Your task to perform on an android device: toggle notifications settings in the gmail app Image 0: 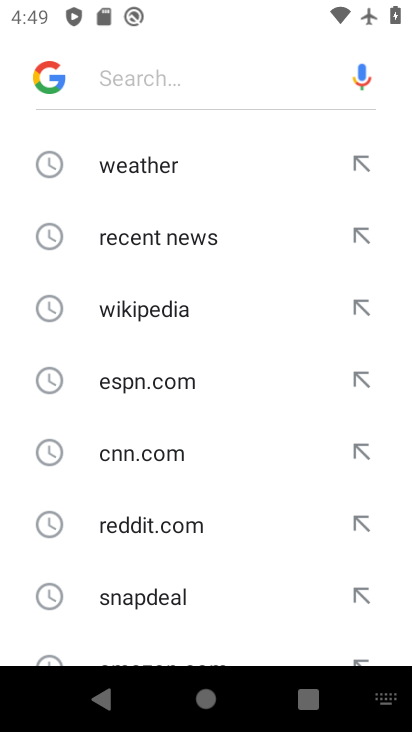
Step 0: press back button
Your task to perform on an android device: toggle notifications settings in the gmail app Image 1: 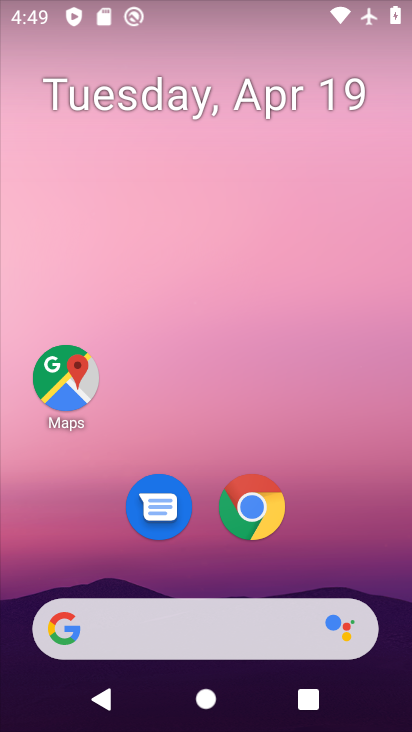
Step 1: drag from (316, 521) to (343, 29)
Your task to perform on an android device: toggle notifications settings in the gmail app Image 2: 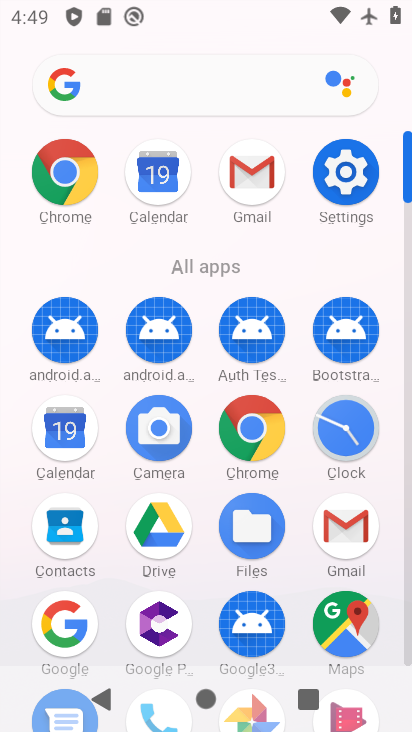
Step 2: click (250, 160)
Your task to perform on an android device: toggle notifications settings in the gmail app Image 3: 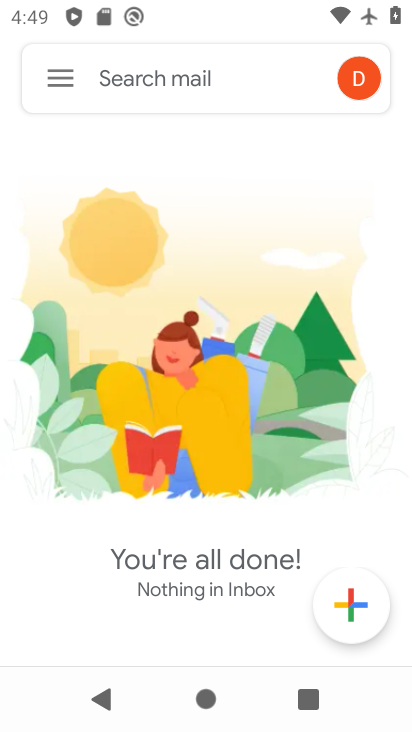
Step 3: click (53, 81)
Your task to perform on an android device: toggle notifications settings in the gmail app Image 4: 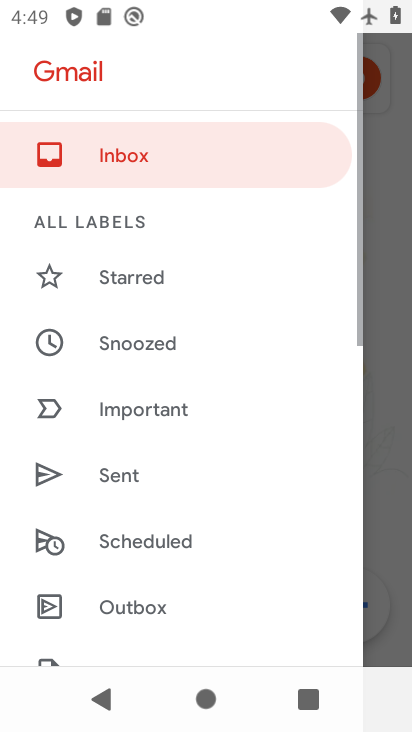
Step 4: drag from (118, 576) to (248, 103)
Your task to perform on an android device: toggle notifications settings in the gmail app Image 5: 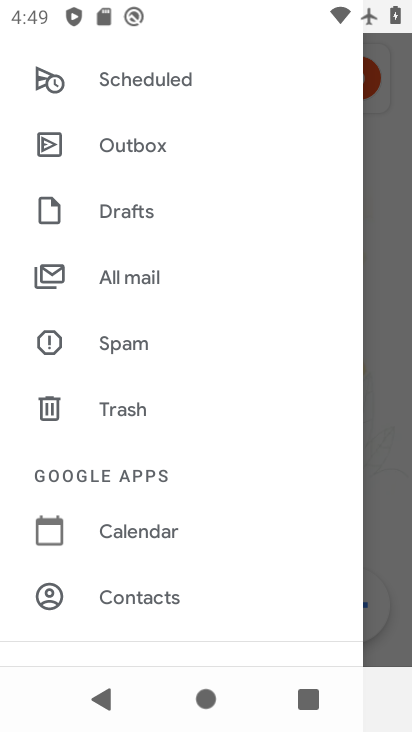
Step 5: drag from (134, 601) to (252, 254)
Your task to perform on an android device: toggle notifications settings in the gmail app Image 6: 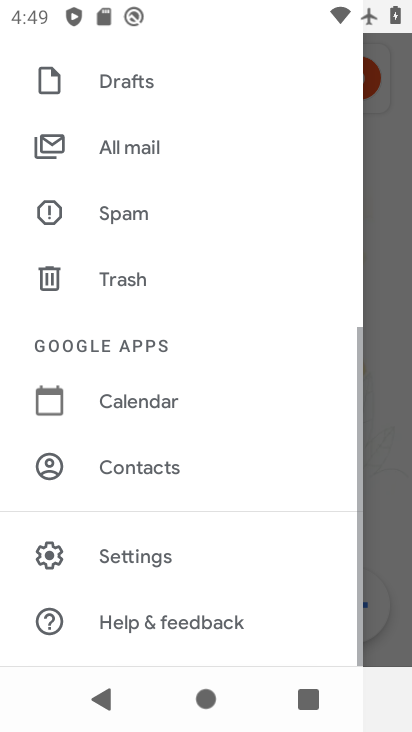
Step 6: click (142, 551)
Your task to perform on an android device: toggle notifications settings in the gmail app Image 7: 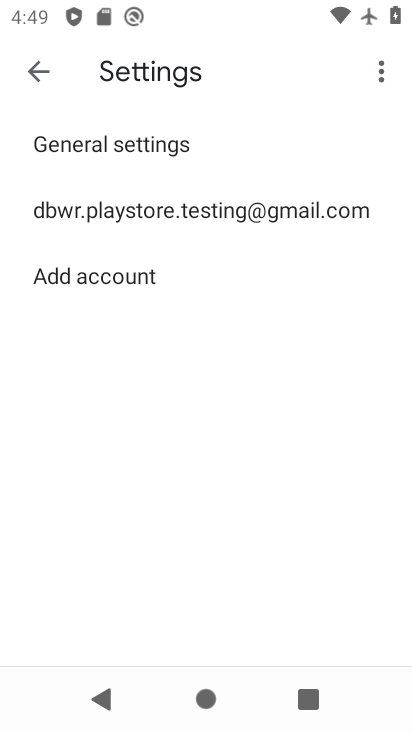
Step 7: click (245, 207)
Your task to perform on an android device: toggle notifications settings in the gmail app Image 8: 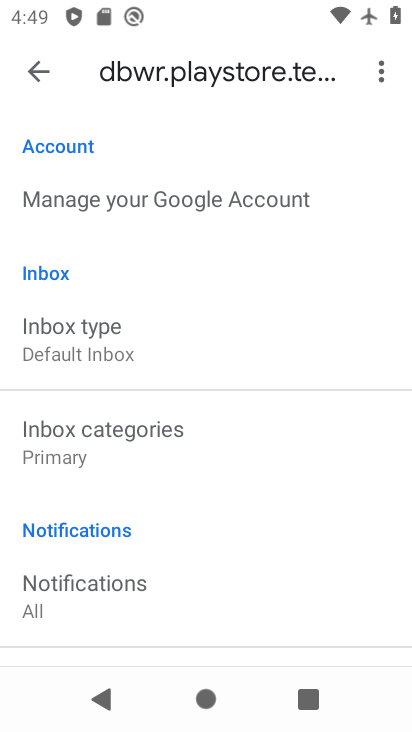
Step 8: drag from (210, 539) to (298, 218)
Your task to perform on an android device: toggle notifications settings in the gmail app Image 9: 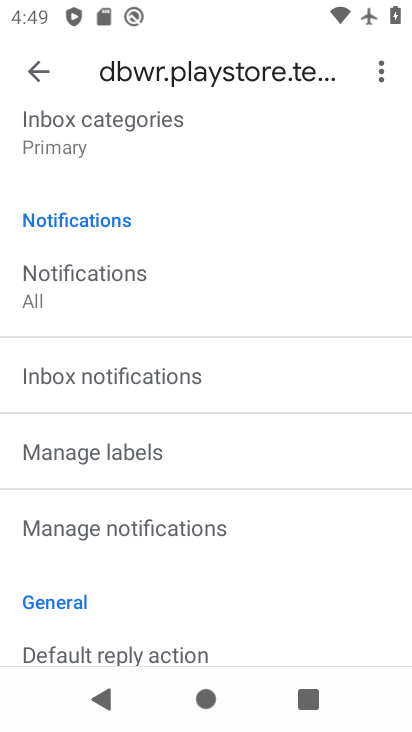
Step 9: click (95, 522)
Your task to perform on an android device: toggle notifications settings in the gmail app Image 10: 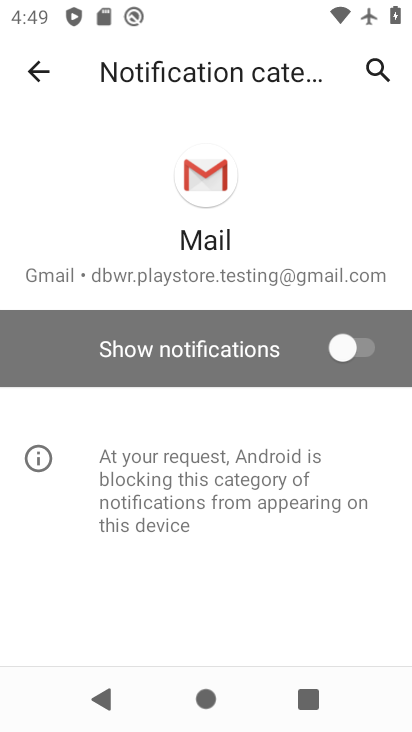
Step 10: click (334, 347)
Your task to perform on an android device: toggle notifications settings in the gmail app Image 11: 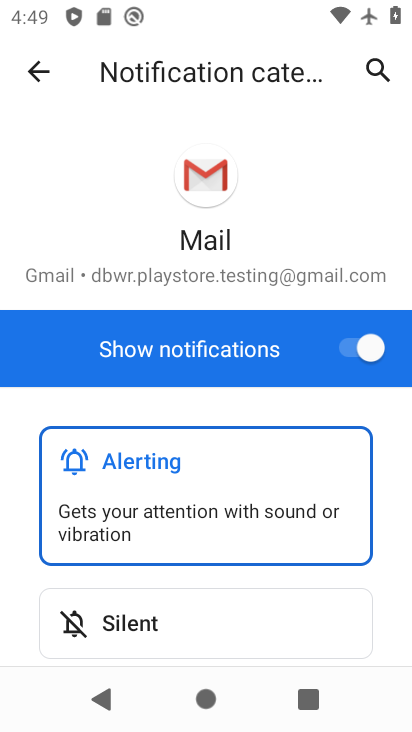
Step 11: task complete